Your task to perform on an android device: Open the calendar and show me this week's events? Image 0: 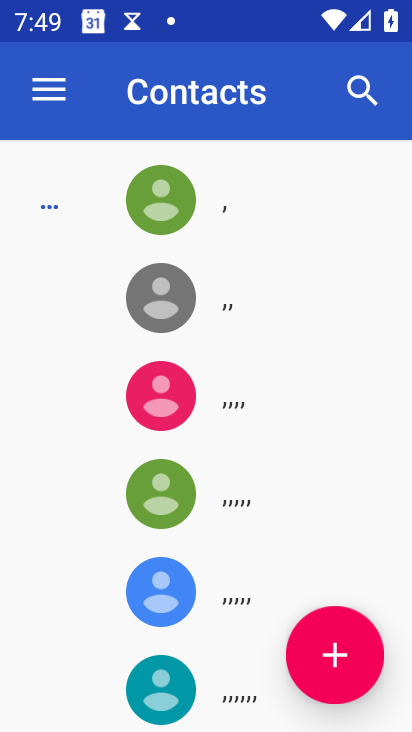
Step 0: press home button
Your task to perform on an android device: Open the calendar and show me this week's events? Image 1: 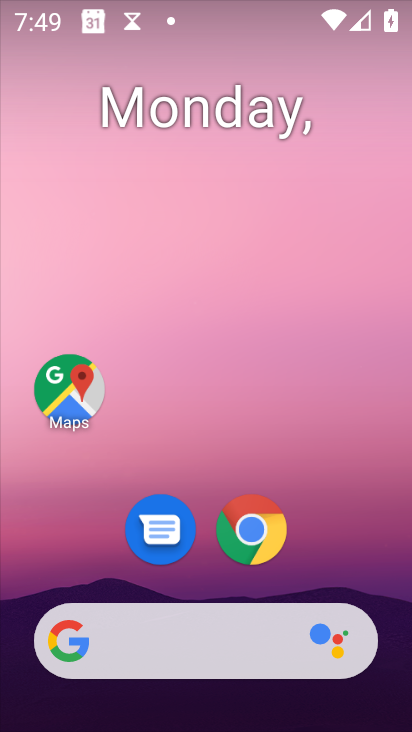
Step 1: drag from (2, 647) to (271, 139)
Your task to perform on an android device: Open the calendar and show me this week's events? Image 2: 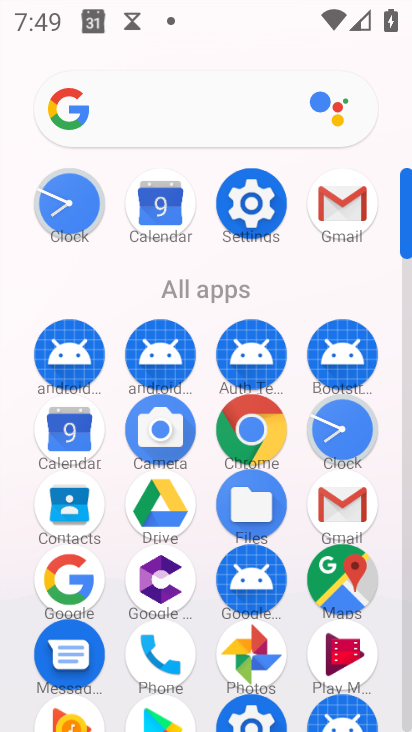
Step 2: click (91, 431)
Your task to perform on an android device: Open the calendar and show me this week's events? Image 3: 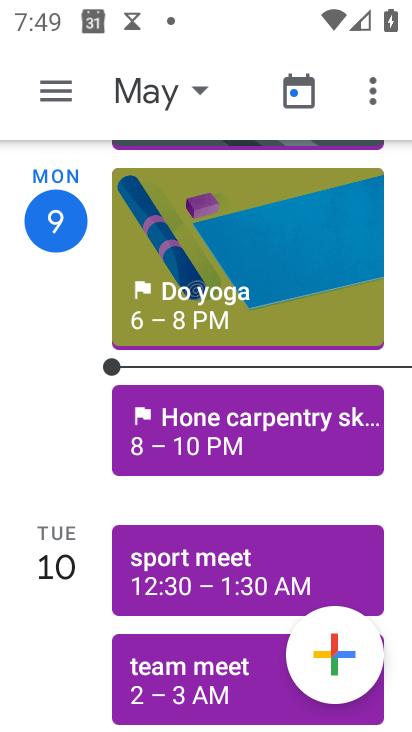
Step 3: click (156, 80)
Your task to perform on an android device: Open the calendar and show me this week's events? Image 4: 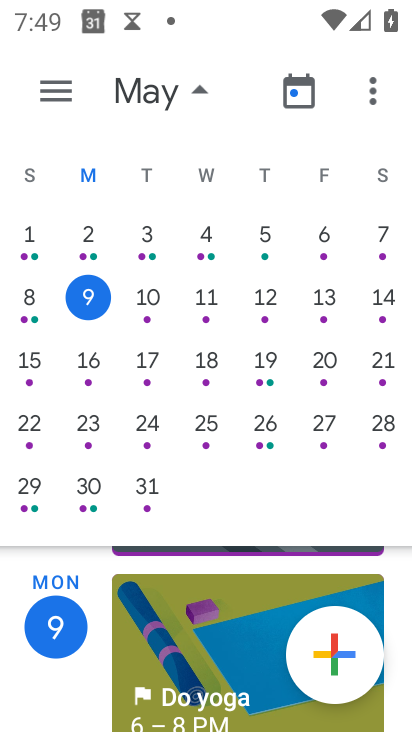
Step 4: click (145, 302)
Your task to perform on an android device: Open the calendar and show me this week's events? Image 5: 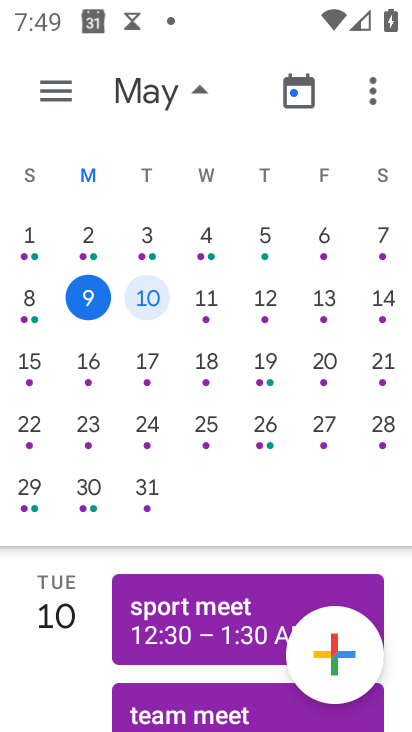
Step 5: click (212, 306)
Your task to perform on an android device: Open the calendar and show me this week's events? Image 6: 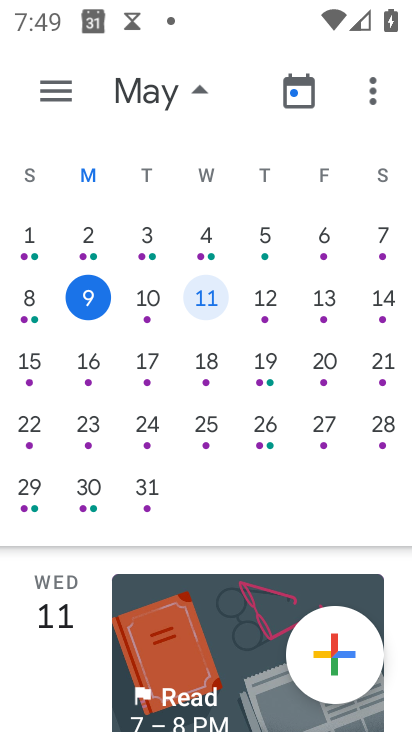
Step 6: click (263, 311)
Your task to perform on an android device: Open the calendar and show me this week's events? Image 7: 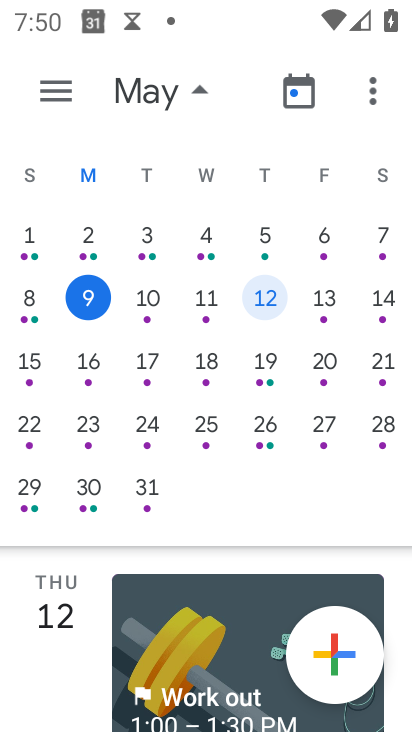
Step 7: click (317, 297)
Your task to perform on an android device: Open the calendar and show me this week's events? Image 8: 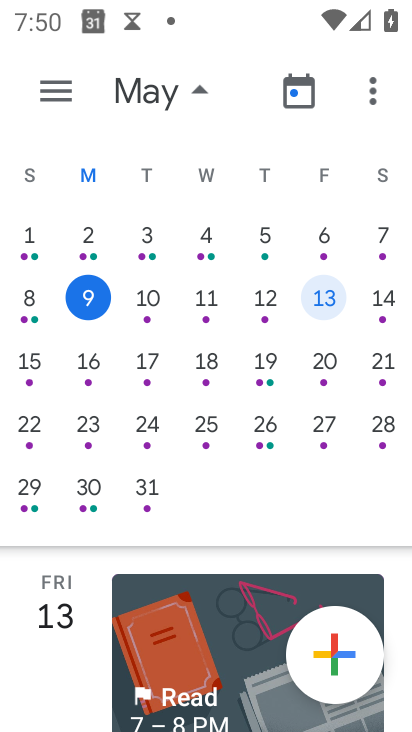
Step 8: click (389, 297)
Your task to perform on an android device: Open the calendar and show me this week's events? Image 9: 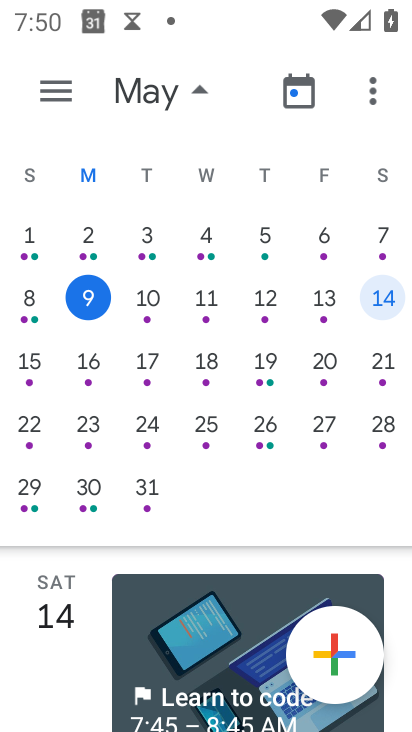
Step 9: task complete